Your task to perform on an android device: Search for Mexican restaurants on Maps Image 0: 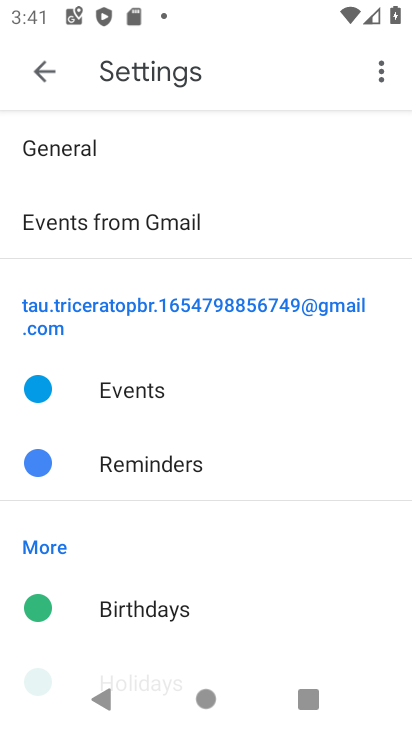
Step 0: press home button
Your task to perform on an android device: Search for Mexican restaurants on Maps Image 1: 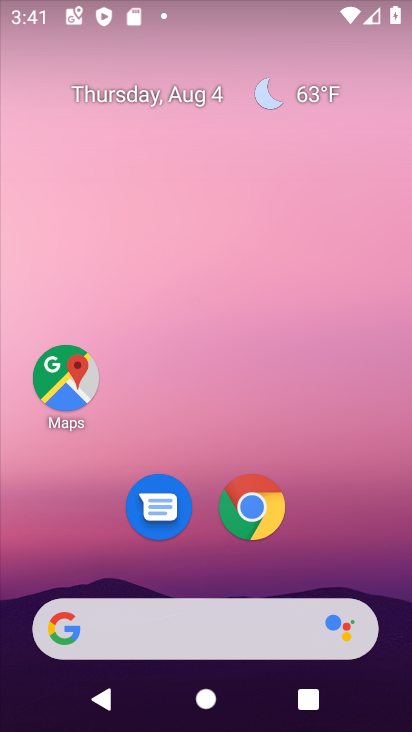
Step 1: click (71, 393)
Your task to perform on an android device: Search for Mexican restaurants on Maps Image 2: 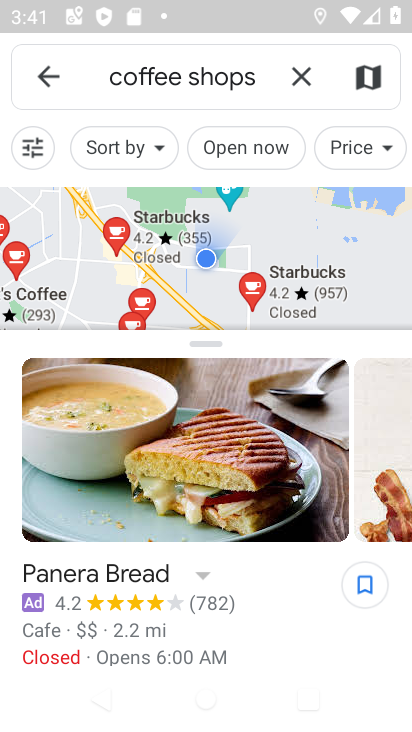
Step 2: click (293, 75)
Your task to perform on an android device: Search for Mexican restaurants on Maps Image 3: 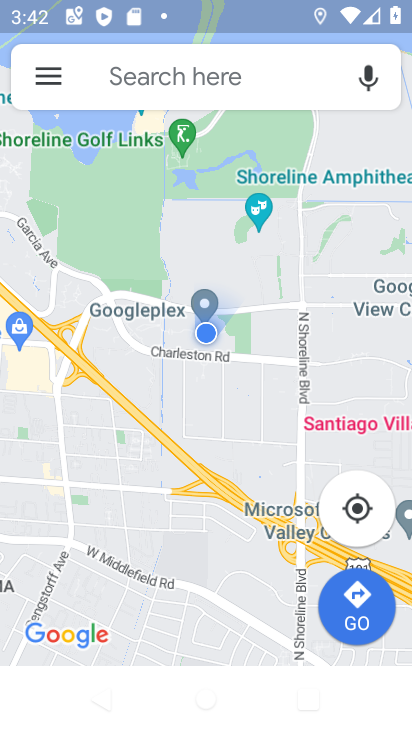
Step 3: click (172, 87)
Your task to perform on an android device: Search for Mexican restaurants on Maps Image 4: 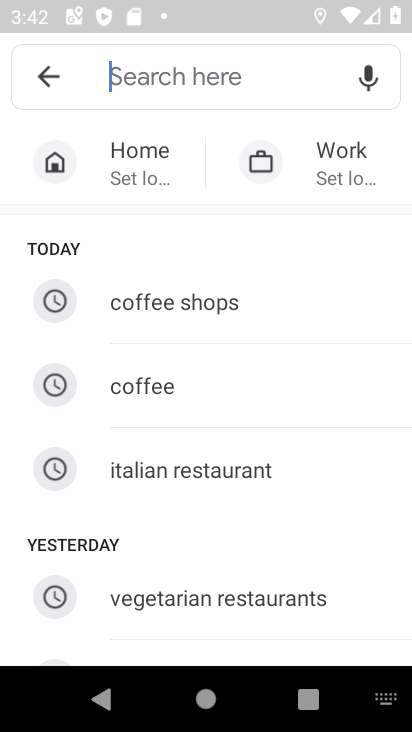
Step 4: type "Mexican restaurants"
Your task to perform on an android device: Search for Mexican restaurants on Maps Image 5: 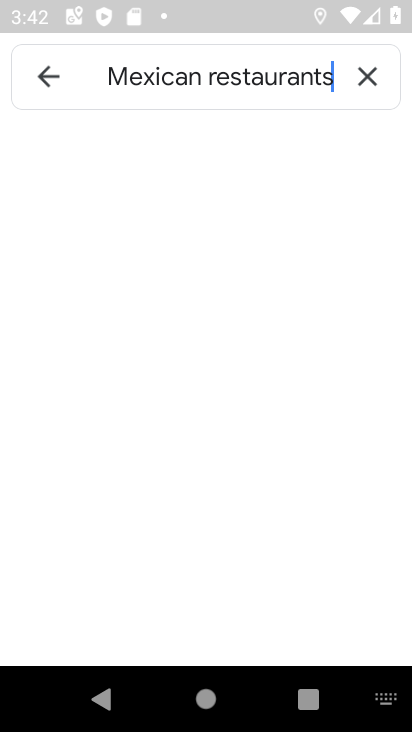
Step 5: type ""
Your task to perform on an android device: Search for Mexican restaurants on Maps Image 6: 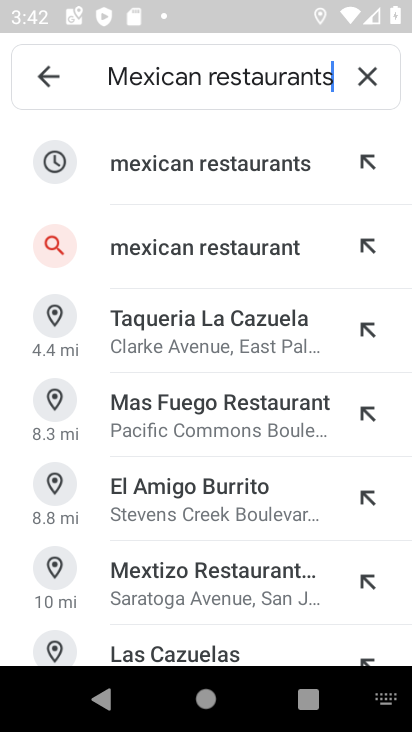
Step 6: click (186, 170)
Your task to perform on an android device: Search for Mexican restaurants on Maps Image 7: 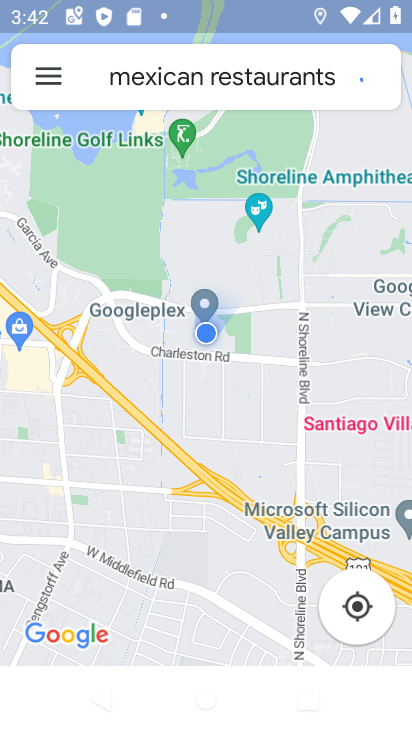
Step 7: task complete